Your task to perform on an android device: Open the stopwatch Image 0: 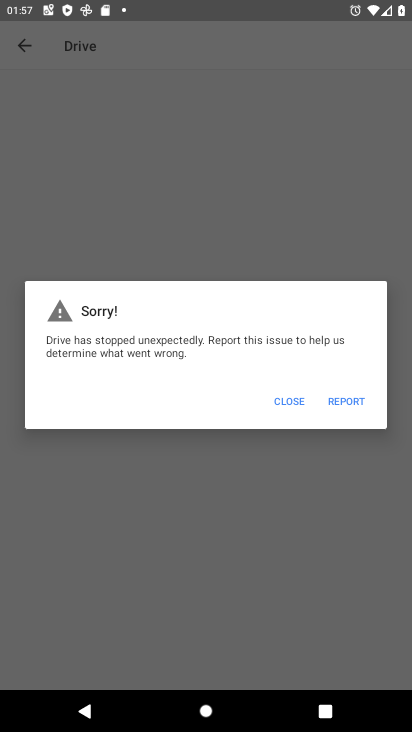
Step 0: press home button
Your task to perform on an android device: Open the stopwatch Image 1: 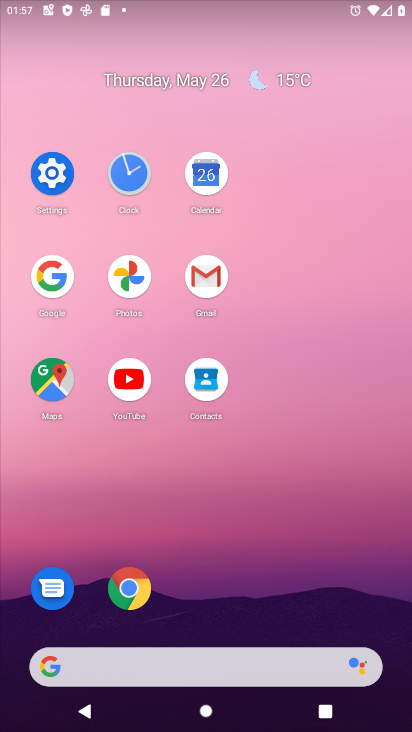
Step 1: click (138, 179)
Your task to perform on an android device: Open the stopwatch Image 2: 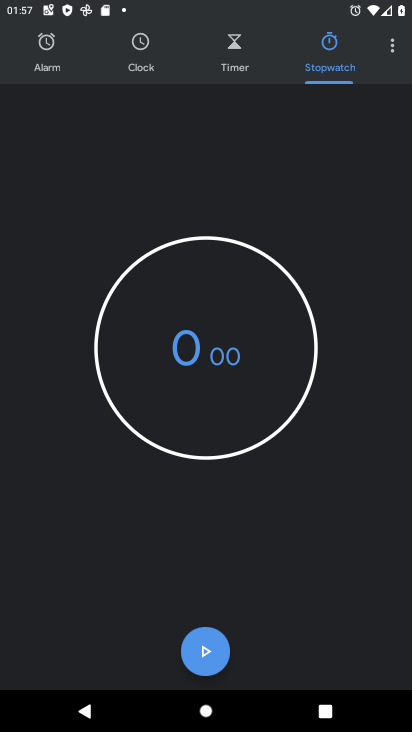
Step 2: task complete